Your task to perform on an android device: turn off picture-in-picture Image 0: 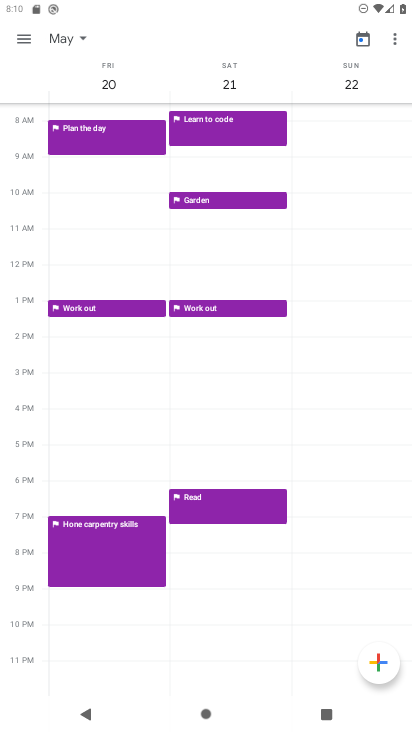
Step 0: press home button
Your task to perform on an android device: turn off picture-in-picture Image 1: 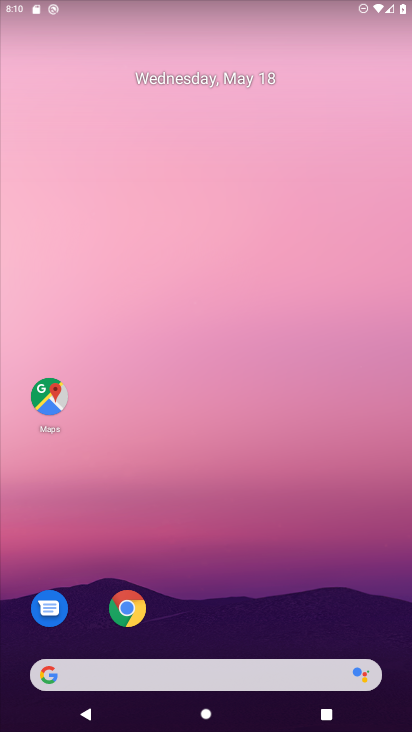
Step 1: click (135, 622)
Your task to perform on an android device: turn off picture-in-picture Image 2: 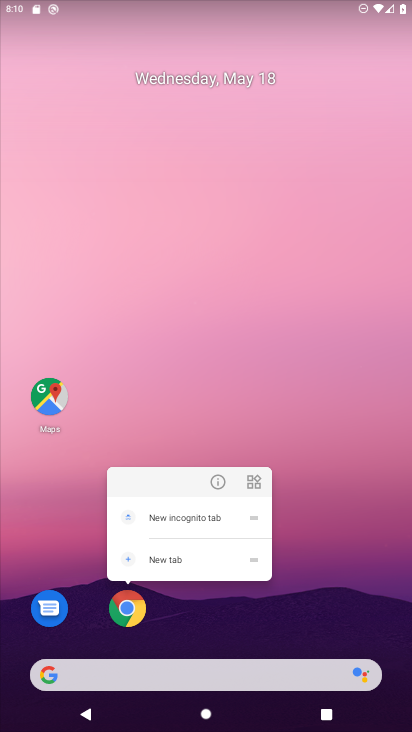
Step 2: click (212, 481)
Your task to perform on an android device: turn off picture-in-picture Image 3: 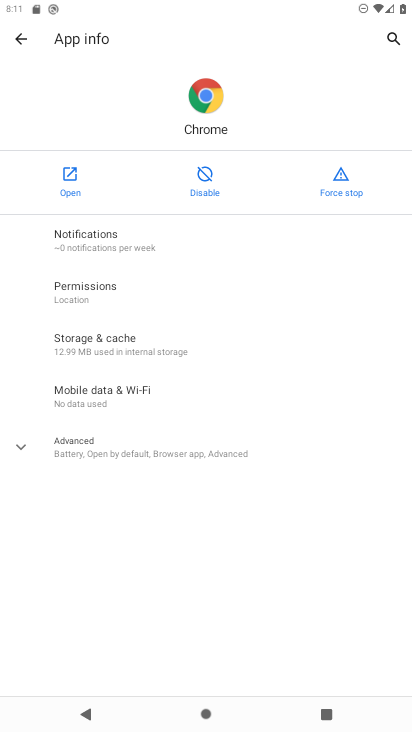
Step 3: click (183, 455)
Your task to perform on an android device: turn off picture-in-picture Image 4: 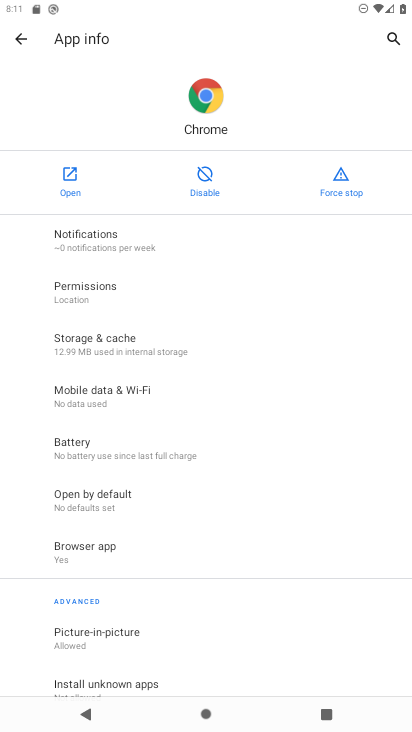
Step 4: click (186, 635)
Your task to perform on an android device: turn off picture-in-picture Image 5: 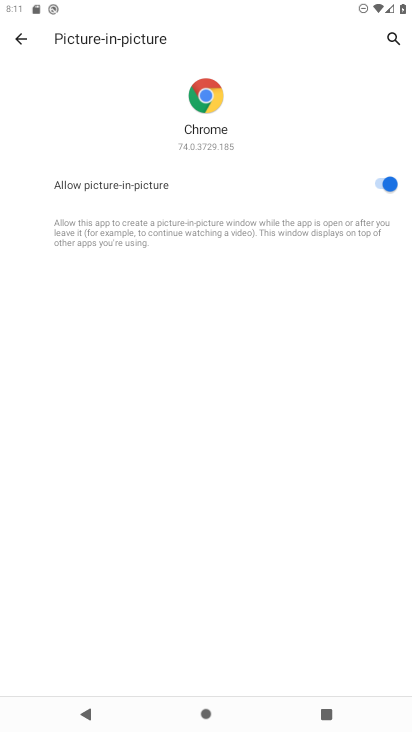
Step 5: click (386, 177)
Your task to perform on an android device: turn off picture-in-picture Image 6: 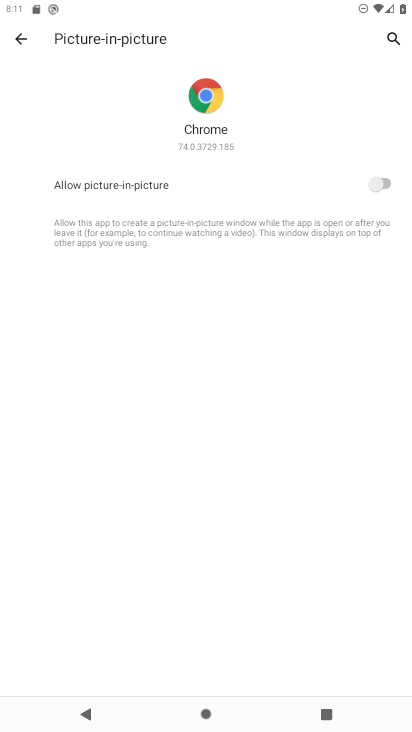
Step 6: task complete